Your task to perform on an android device: open app "Viber Messenger" (install if not already installed) Image 0: 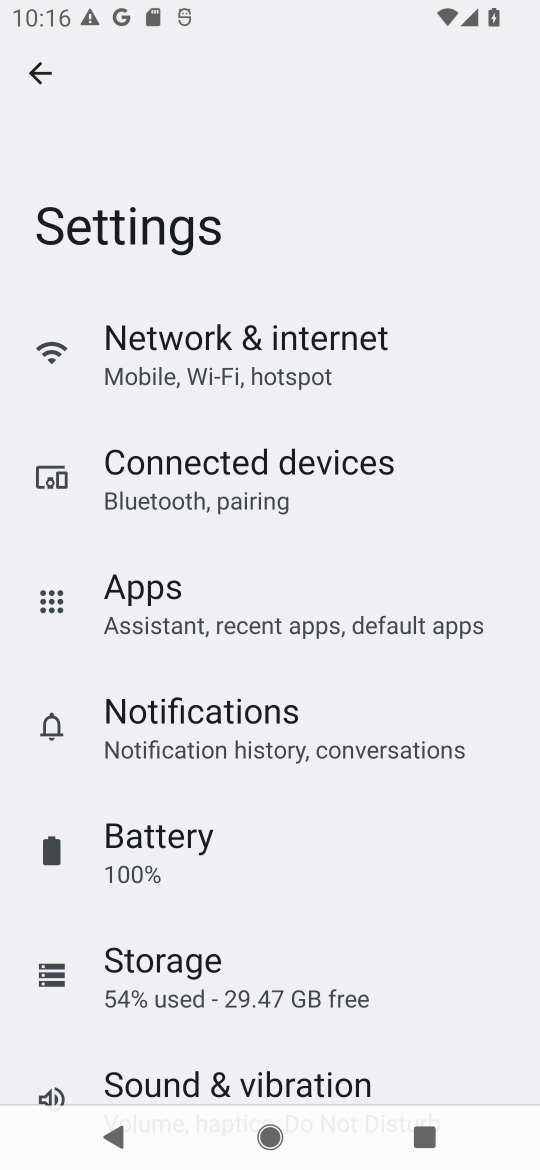
Step 0: press home button
Your task to perform on an android device: open app "Viber Messenger" (install if not already installed) Image 1: 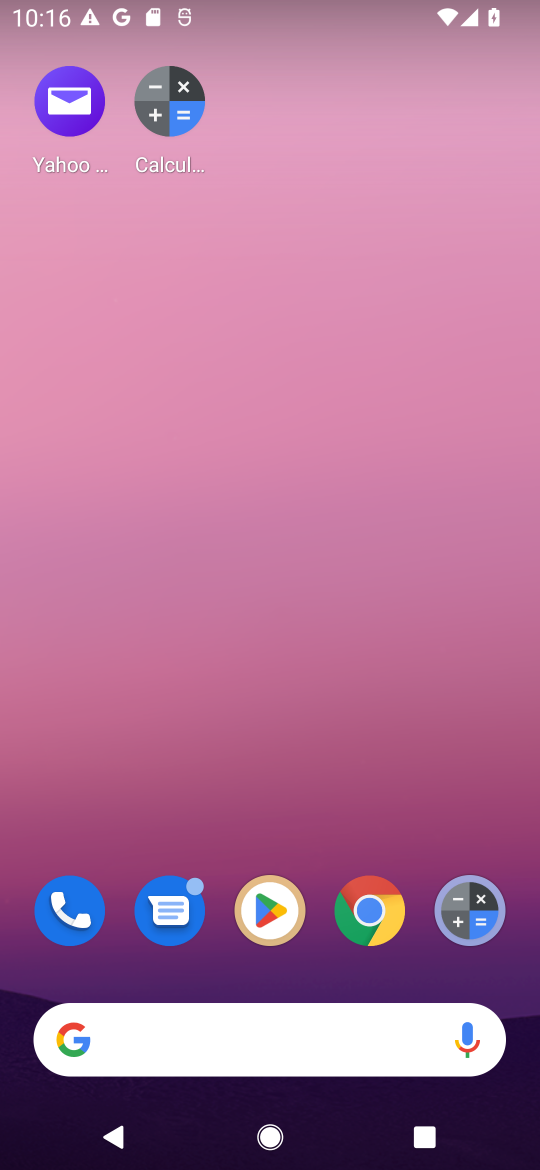
Step 1: click (256, 915)
Your task to perform on an android device: open app "Viber Messenger" (install if not already installed) Image 2: 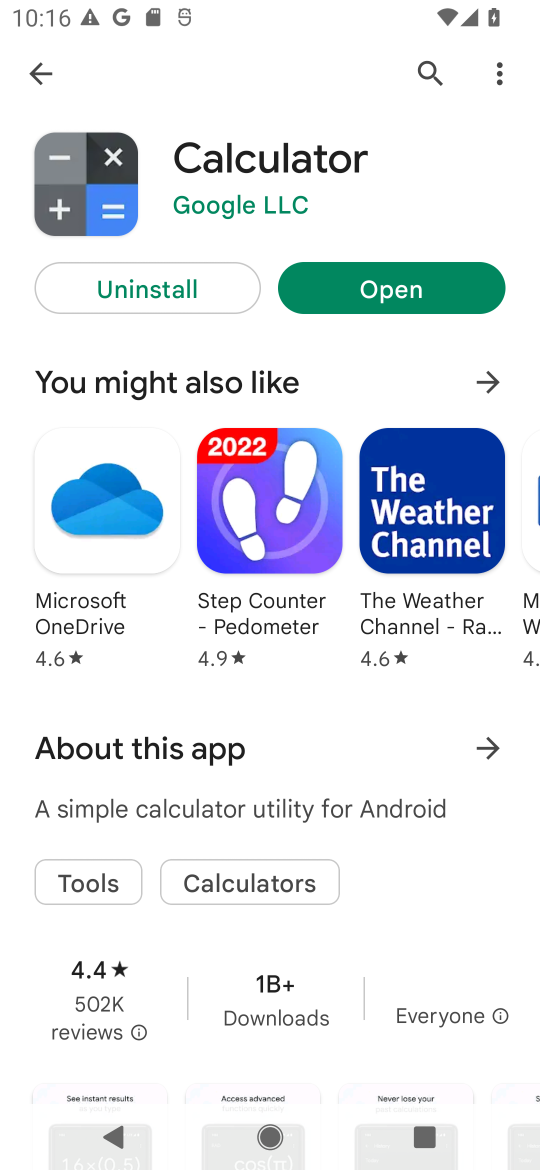
Step 2: click (418, 78)
Your task to perform on an android device: open app "Viber Messenger" (install if not already installed) Image 3: 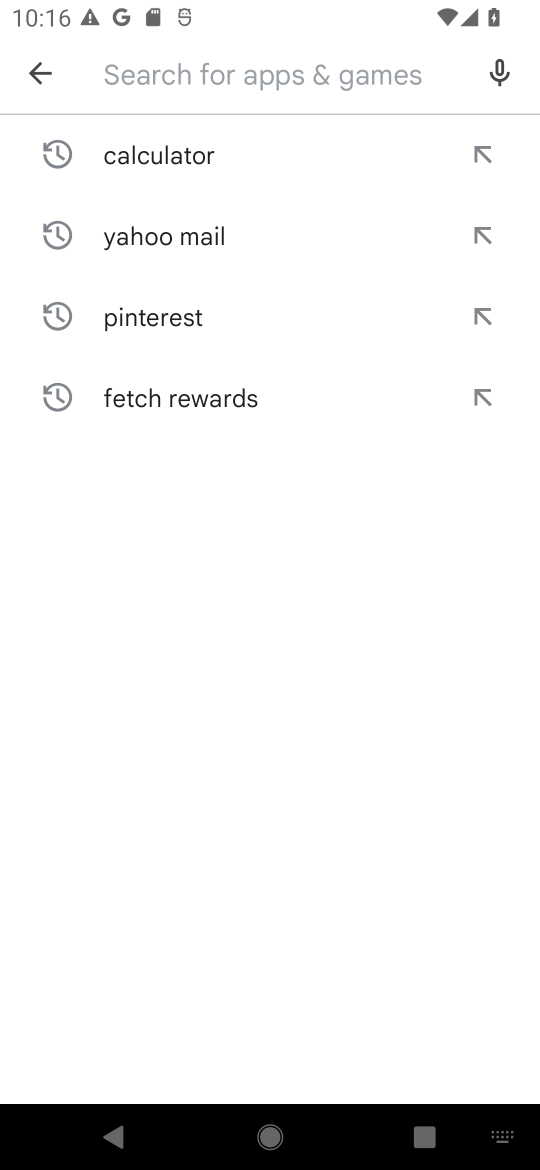
Step 3: type "Viber Messenger"
Your task to perform on an android device: open app "Viber Messenger" (install if not already installed) Image 4: 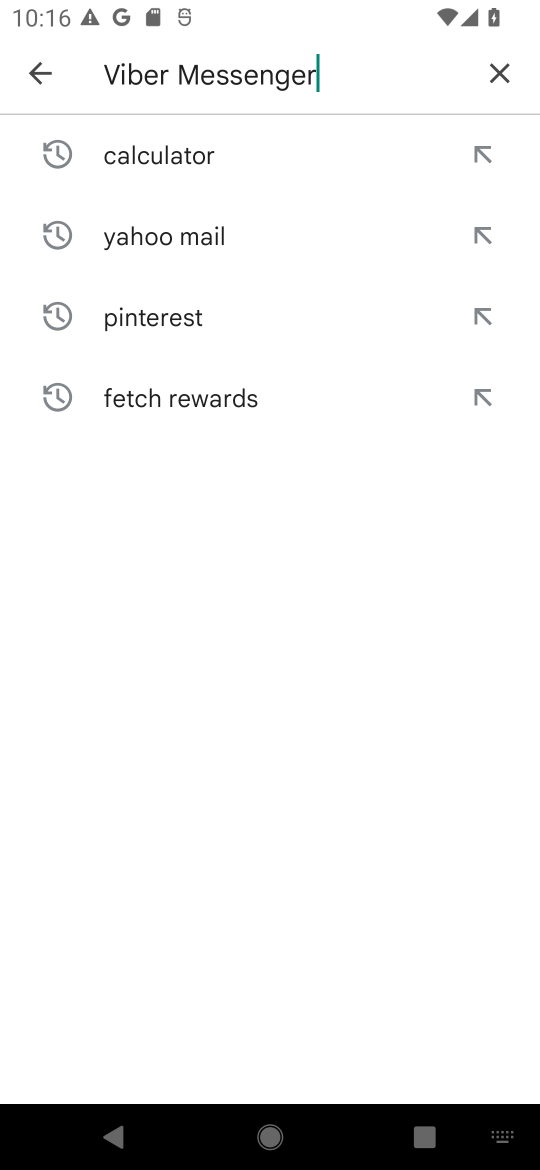
Step 4: type ""
Your task to perform on an android device: open app "Viber Messenger" (install if not already installed) Image 5: 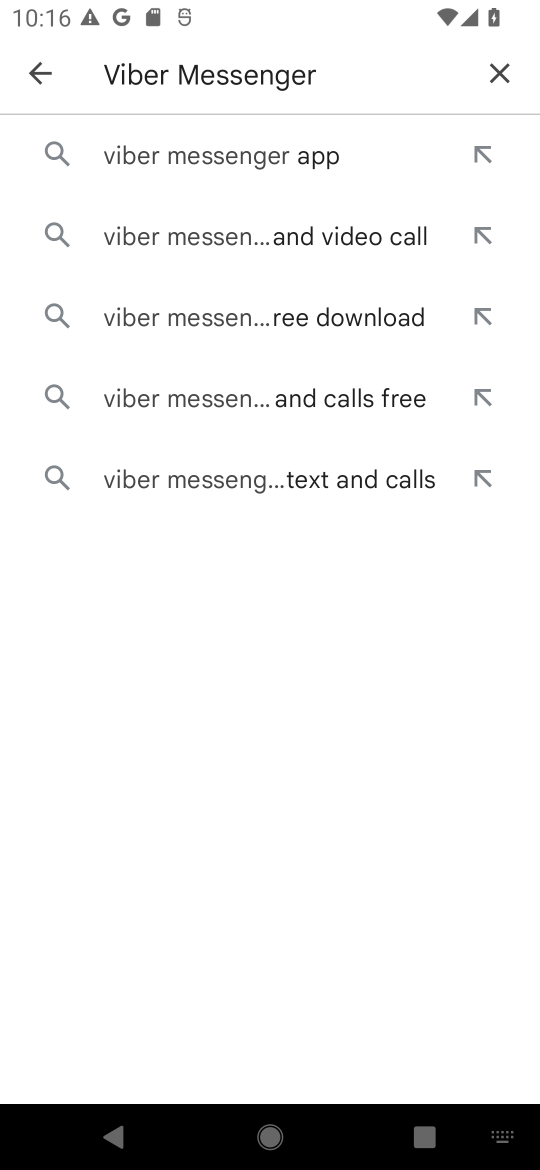
Step 5: click (224, 158)
Your task to perform on an android device: open app "Viber Messenger" (install if not already installed) Image 6: 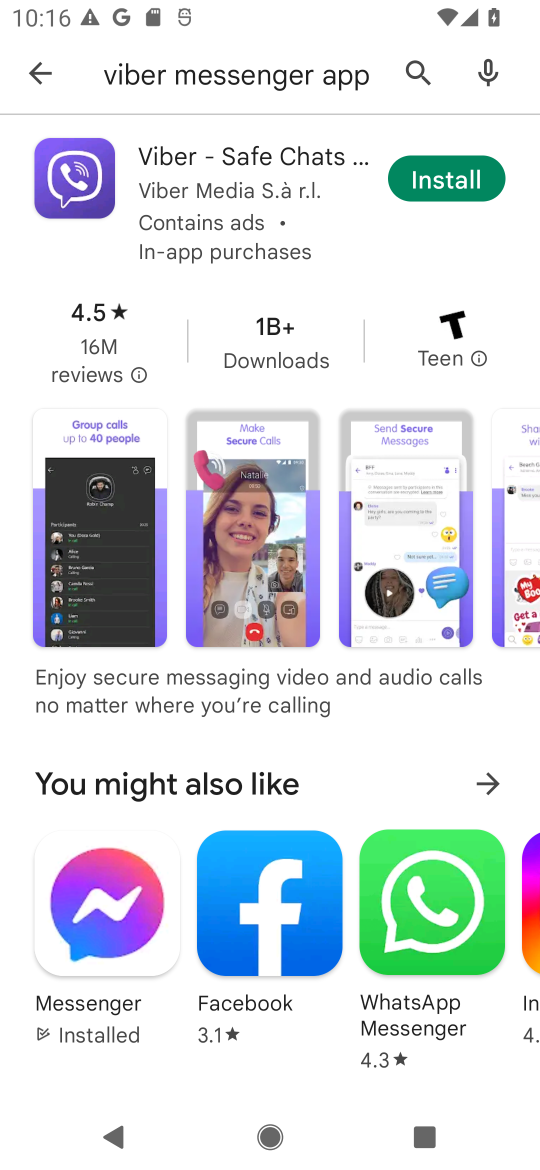
Step 6: click (438, 192)
Your task to perform on an android device: open app "Viber Messenger" (install if not already installed) Image 7: 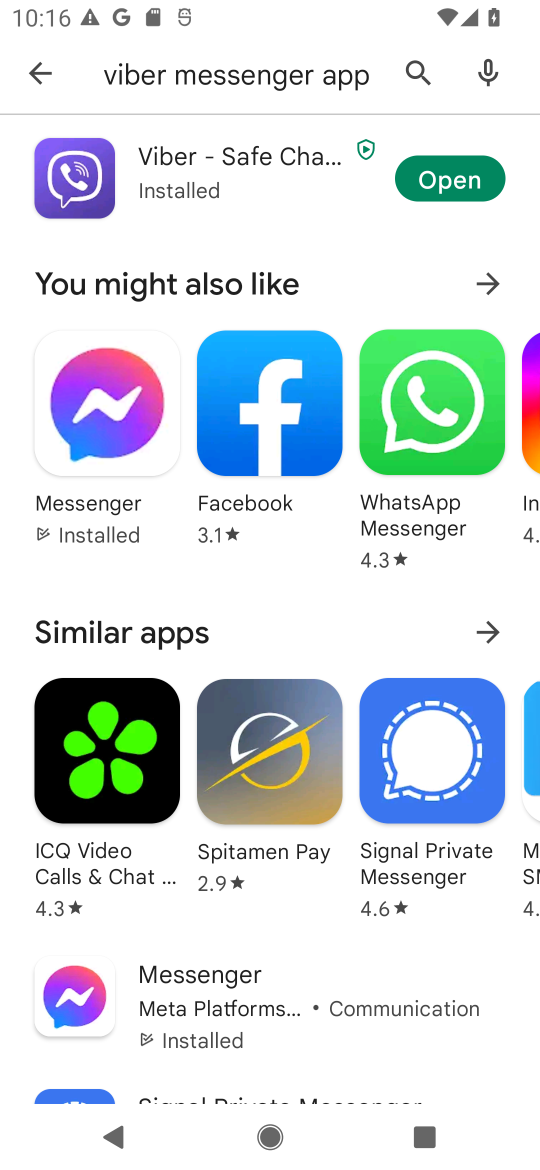
Step 7: click (435, 184)
Your task to perform on an android device: open app "Viber Messenger" (install if not already installed) Image 8: 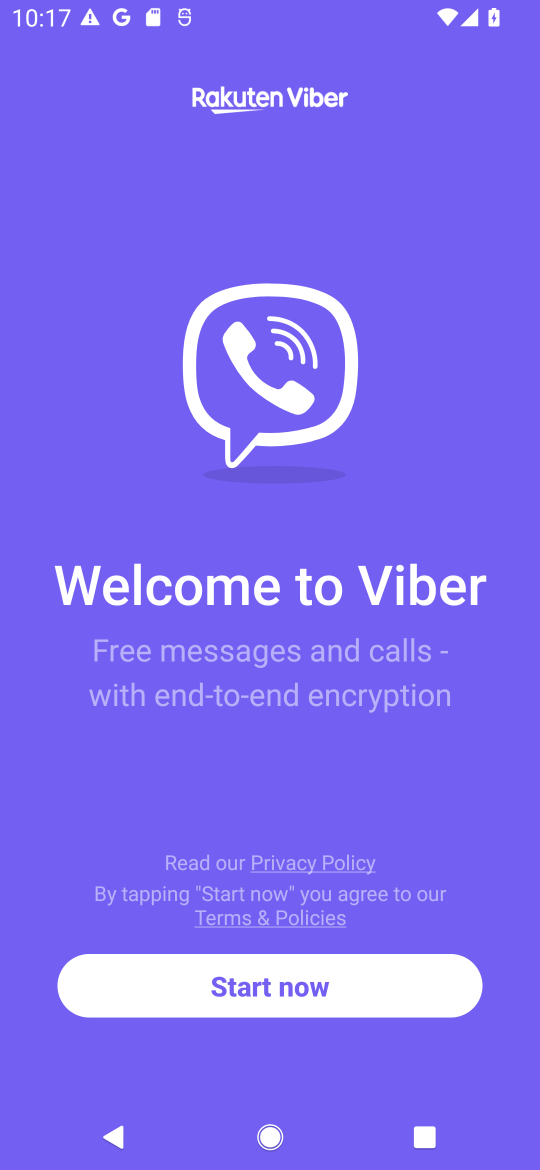
Step 8: task complete